Your task to perform on an android device: install app "DoorDash - Dasher" Image 0: 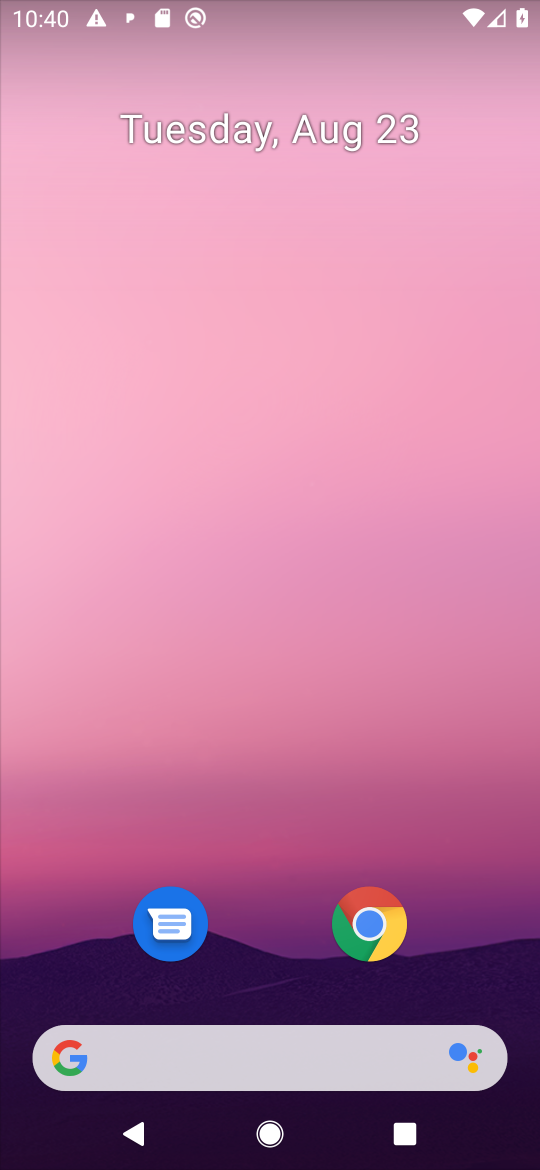
Step 0: press home button
Your task to perform on an android device: install app "DoorDash - Dasher" Image 1: 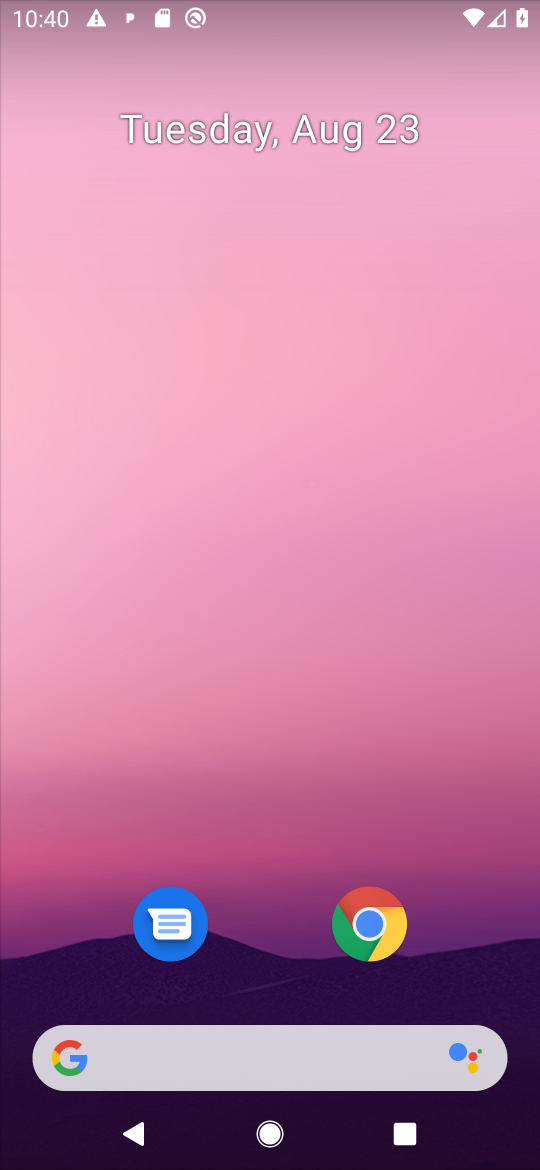
Step 1: drag from (466, 914) to (460, 113)
Your task to perform on an android device: install app "DoorDash - Dasher" Image 2: 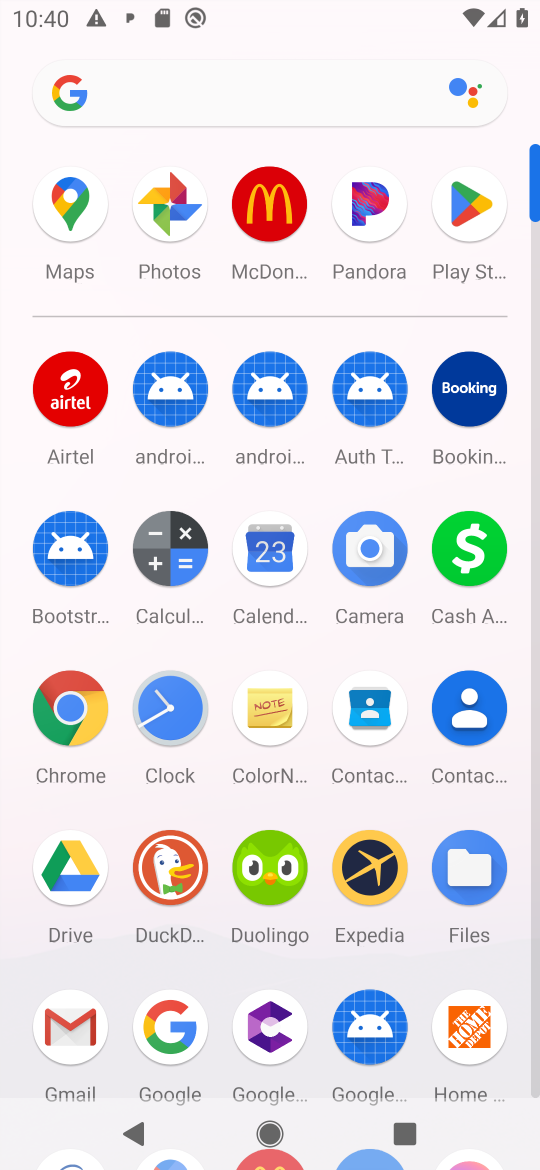
Step 2: click (476, 211)
Your task to perform on an android device: install app "DoorDash - Dasher" Image 3: 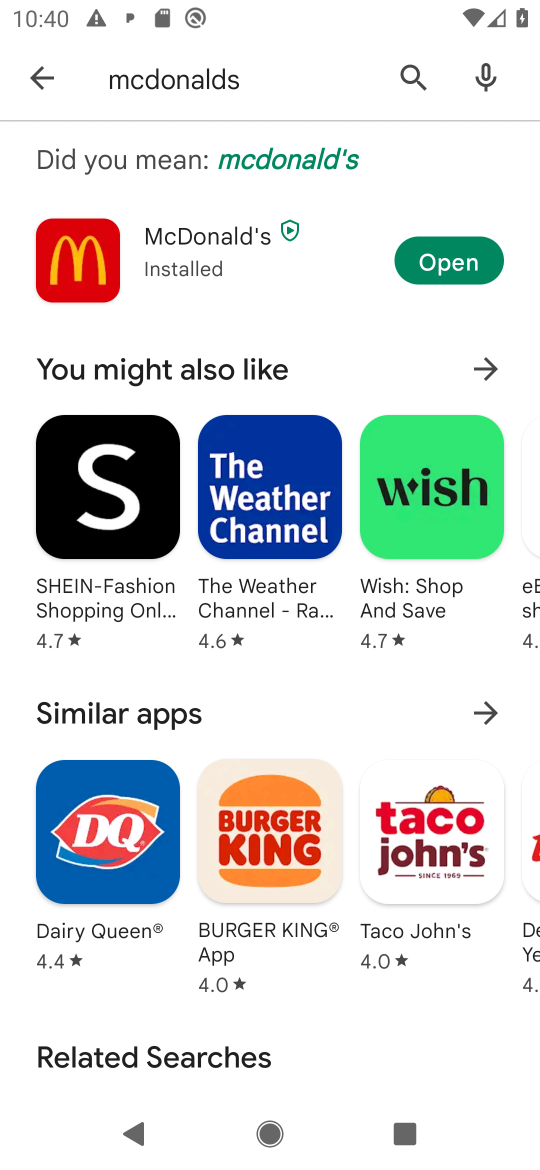
Step 3: press back button
Your task to perform on an android device: install app "DoorDash - Dasher" Image 4: 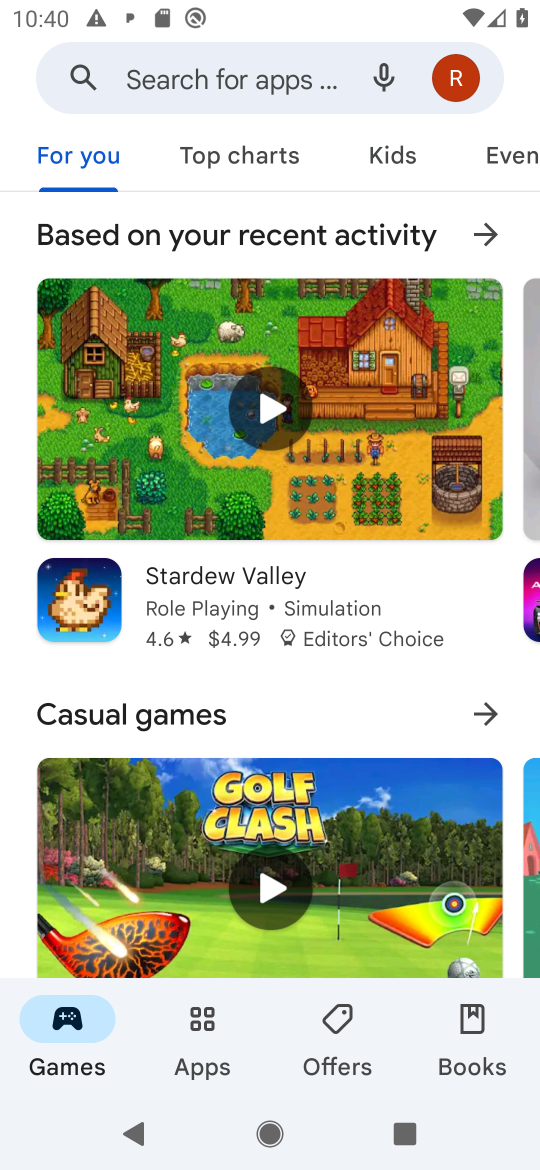
Step 4: click (273, 64)
Your task to perform on an android device: install app "DoorDash - Dasher" Image 5: 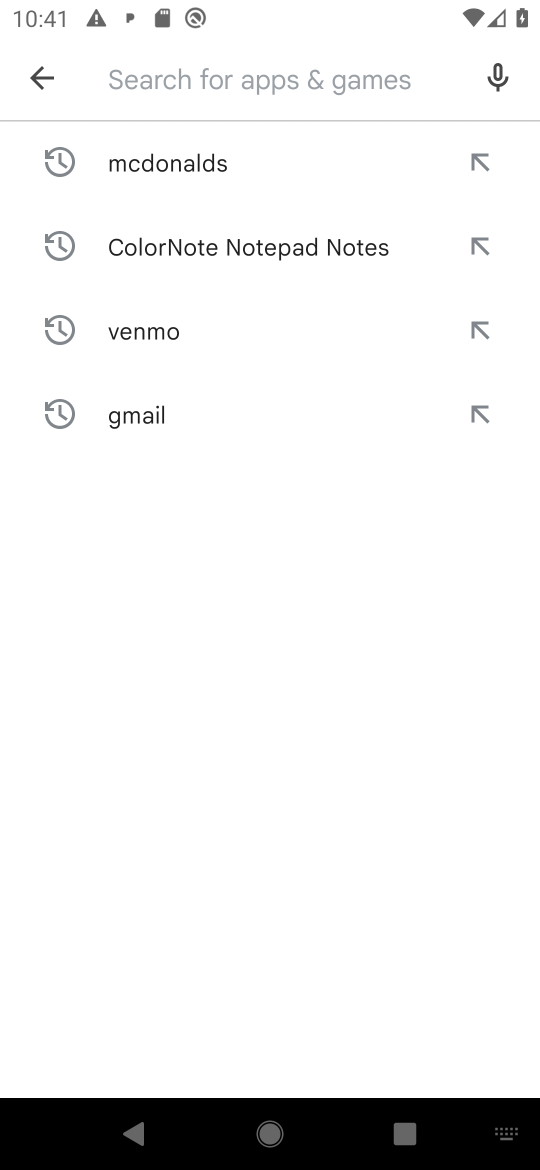
Step 5: press enter
Your task to perform on an android device: install app "DoorDash - Dasher" Image 6: 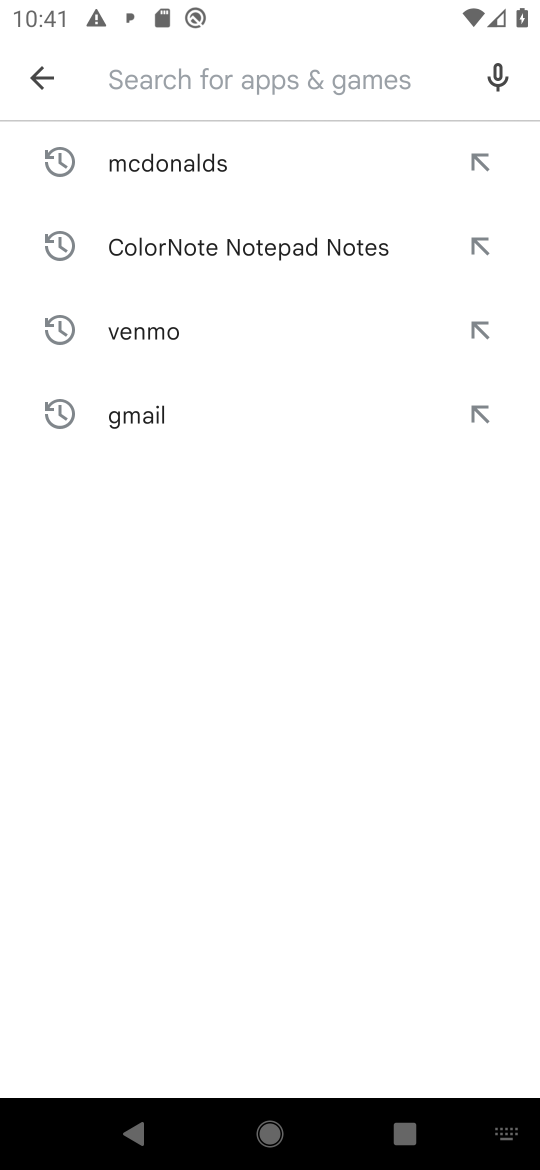
Step 6: type "DoorDash - Dasher"
Your task to perform on an android device: install app "DoorDash - Dasher" Image 7: 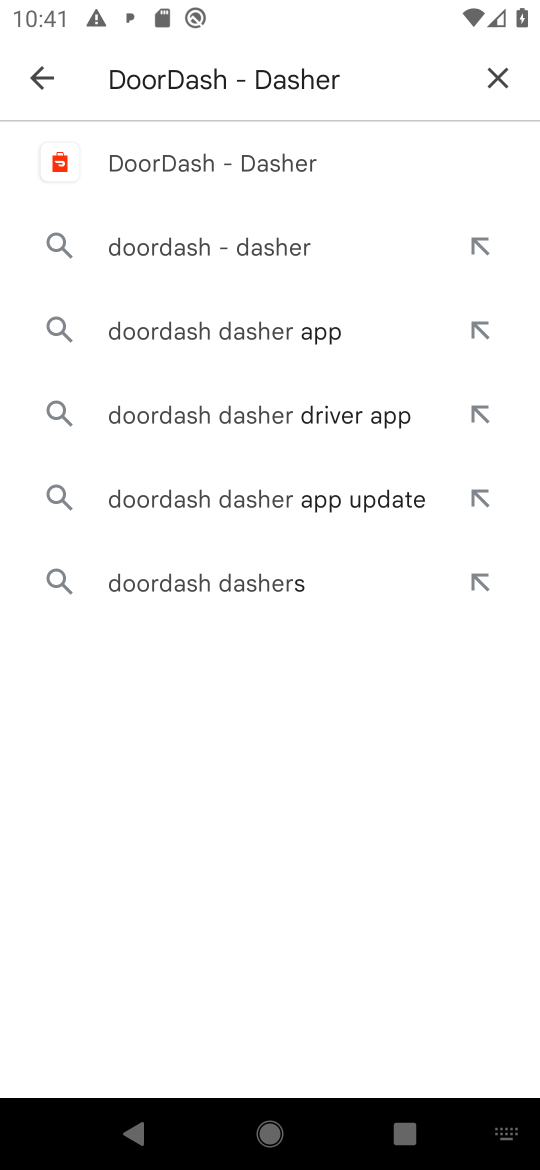
Step 7: click (319, 169)
Your task to perform on an android device: install app "DoorDash - Dasher" Image 8: 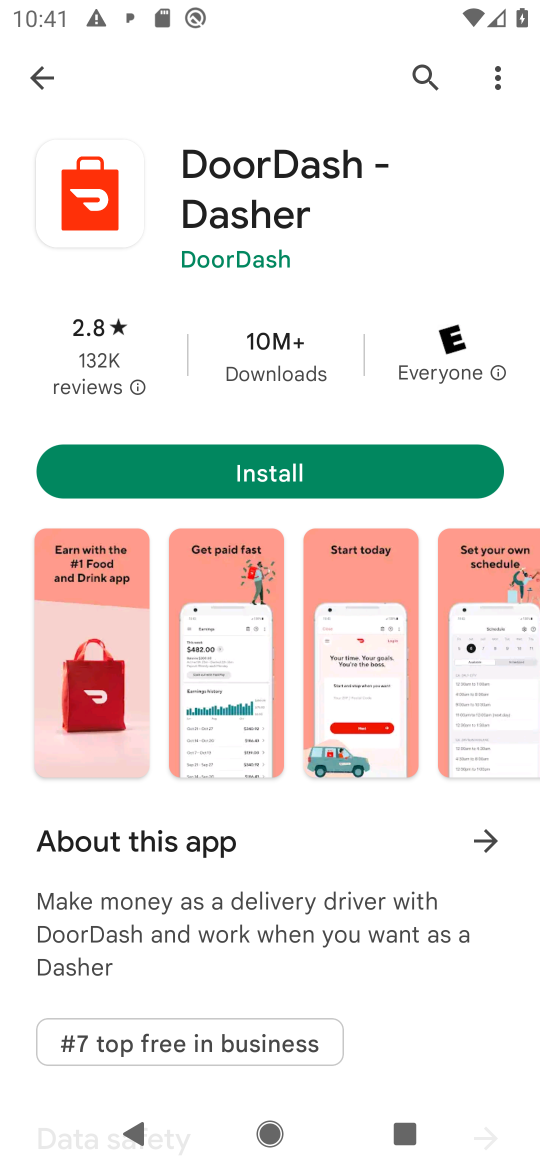
Step 8: click (386, 475)
Your task to perform on an android device: install app "DoorDash - Dasher" Image 9: 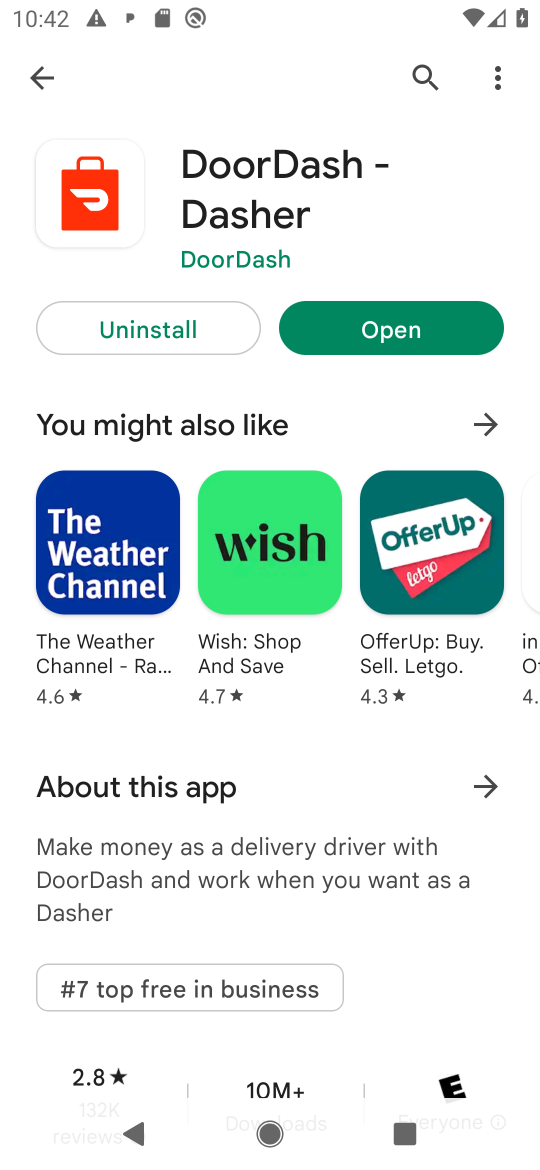
Step 9: task complete